Your task to perform on an android device: Open the calendar app, open the side menu, and click the "Day" option Image 0: 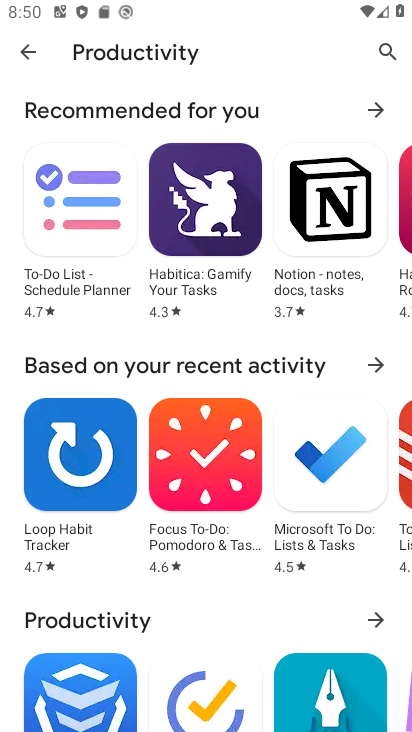
Step 0: press back button
Your task to perform on an android device: Open the calendar app, open the side menu, and click the "Day" option Image 1: 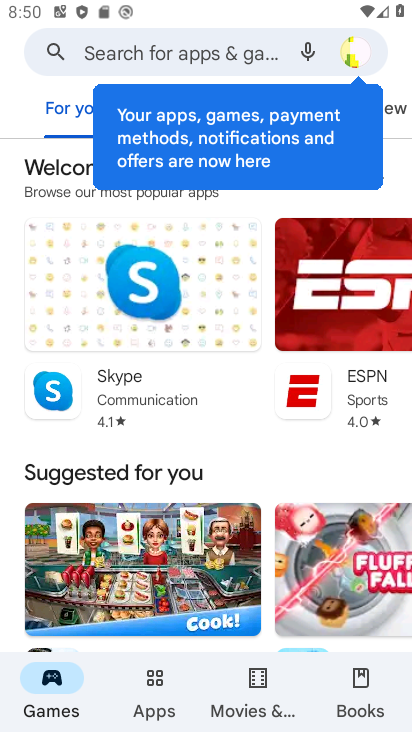
Step 1: press home button
Your task to perform on an android device: Open the calendar app, open the side menu, and click the "Day" option Image 2: 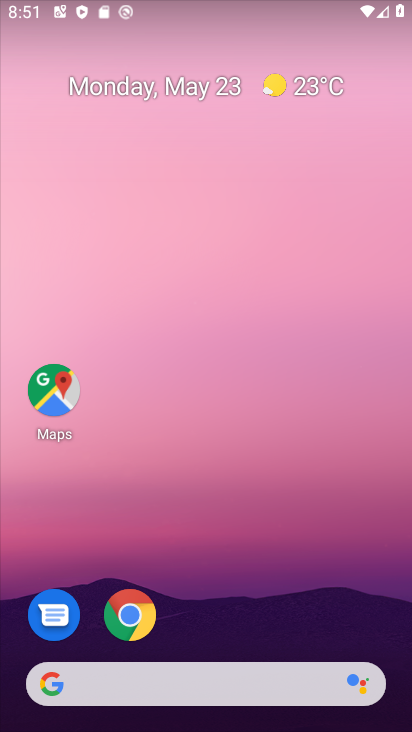
Step 2: drag from (260, 610) to (230, 143)
Your task to perform on an android device: Open the calendar app, open the side menu, and click the "Day" option Image 3: 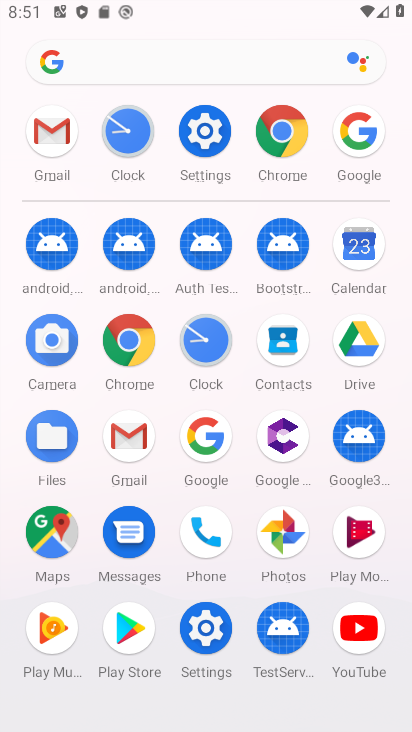
Step 3: click (361, 244)
Your task to perform on an android device: Open the calendar app, open the side menu, and click the "Day" option Image 4: 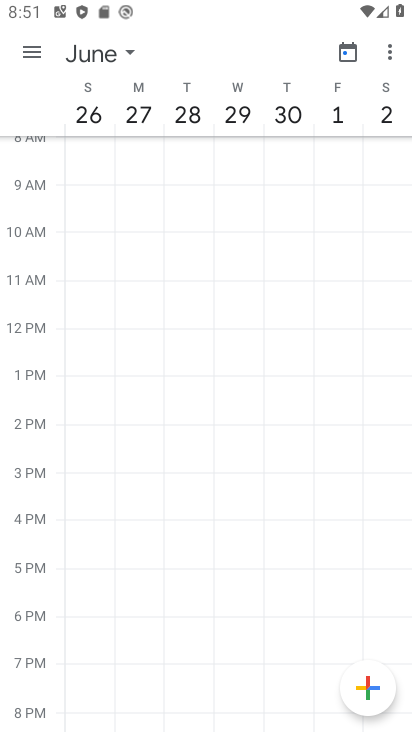
Step 4: click (34, 54)
Your task to perform on an android device: Open the calendar app, open the side menu, and click the "Day" option Image 5: 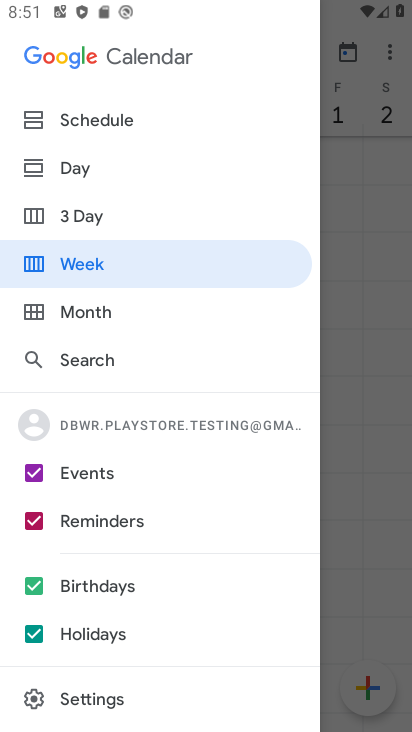
Step 5: click (80, 164)
Your task to perform on an android device: Open the calendar app, open the side menu, and click the "Day" option Image 6: 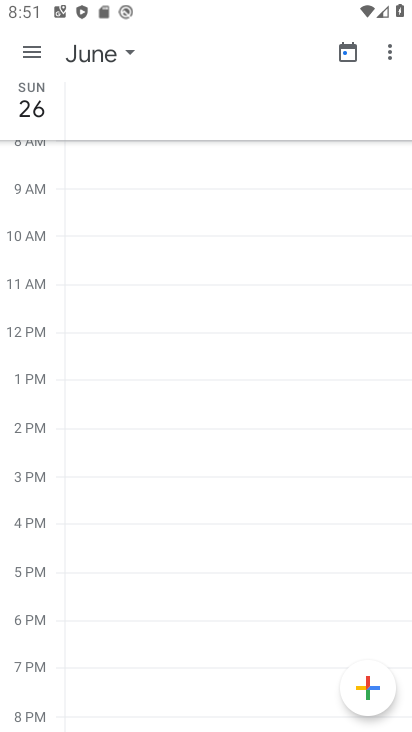
Step 6: task complete